Your task to perform on an android device: open app "DoorDash - Dasher" Image 0: 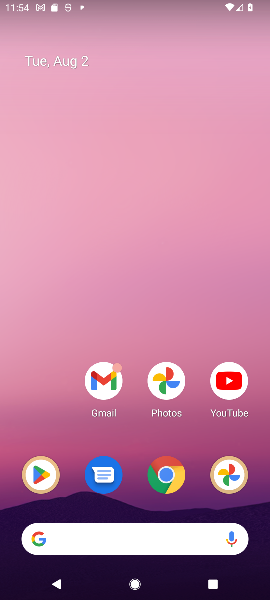
Step 0: click (41, 467)
Your task to perform on an android device: open app "DoorDash - Dasher" Image 1: 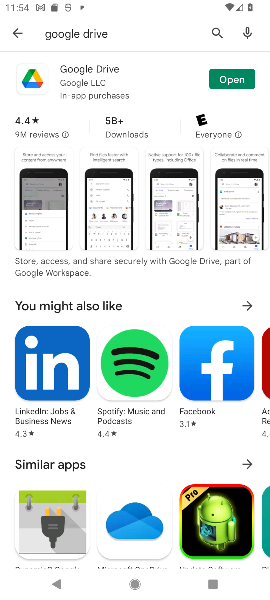
Step 1: click (219, 28)
Your task to perform on an android device: open app "DoorDash - Dasher" Image 2: 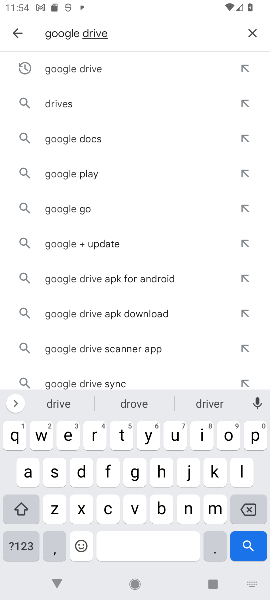
Step 2: click (255, 29)
Your task to perform on an android device: open app "DoorDash - Dasher" Image 3: 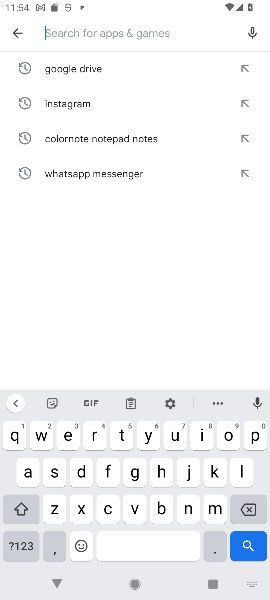
Step 3: type "DoorDash - Dasher"
Your task to perform on an android device: open app "DoorDash - Dasher" Image 4: 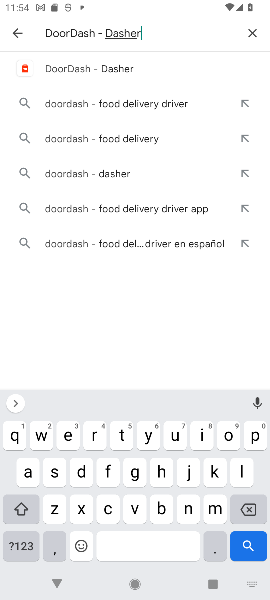
Step 4: type ""
Your task to perform on an android device: open app "DoorDash - Dasher" Image 5: 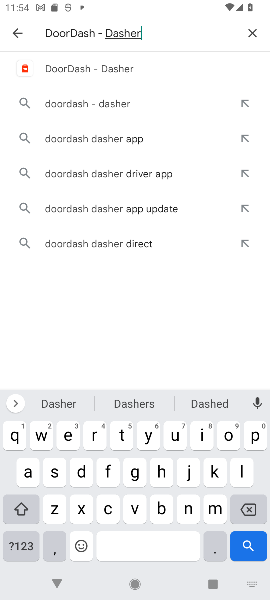
Step 5: click (111, 65)
Your task to perform on an android device: open app "DoorDash - Dasher" Image 6: 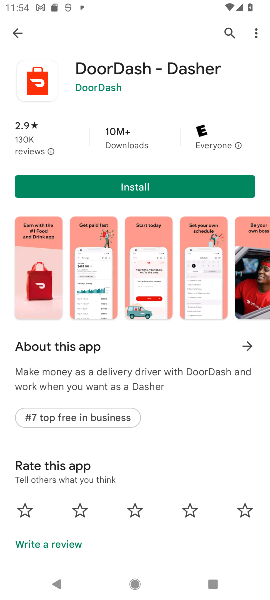
Step 6: task complete